Your task to perform on an android device: turn pop-ups off in chrome Image 0: 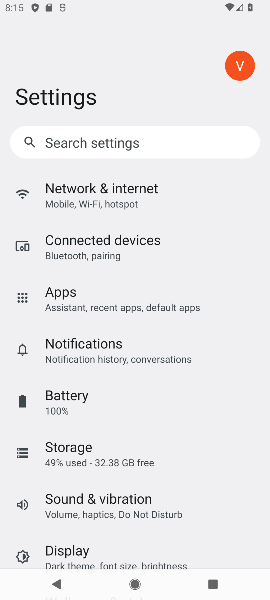
Step 0: drag from (166, 468) to (136, 194)
Your task to perform on an android device: turn pop-ups off in chrome Image 1: 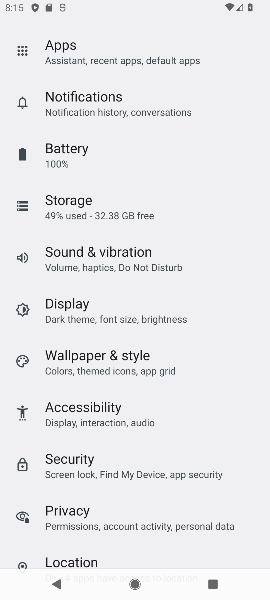
Step 1: press home button
Your task to perform on an android device: turn pop-ups off in chrome Image 2: 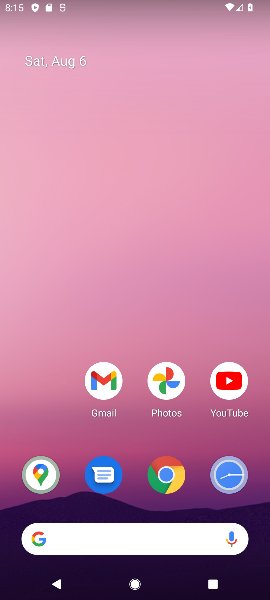
Step 2: click (164, 455)
Your task to perform on an android device: turn pop-ups off in chrome Image 3: 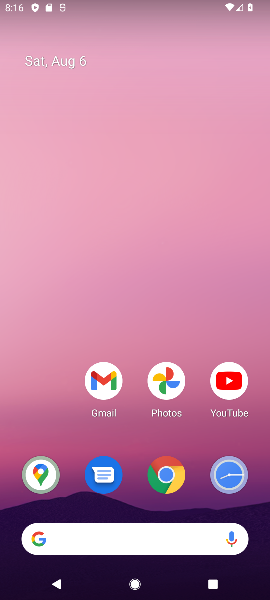
Step 3: click (167, 452)
Your task to perform on an android device: turn pop-ups off in chrome Image 4: 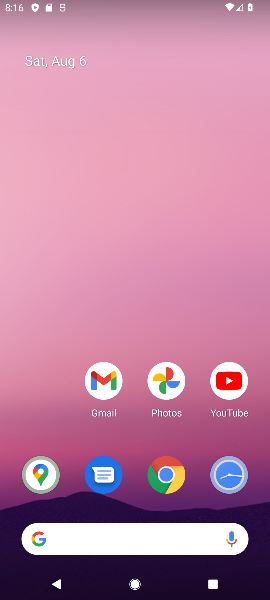
Step 4: click (172, 479)
Your task to perform on an android device: turn pop-ups off in chrome Image 5: 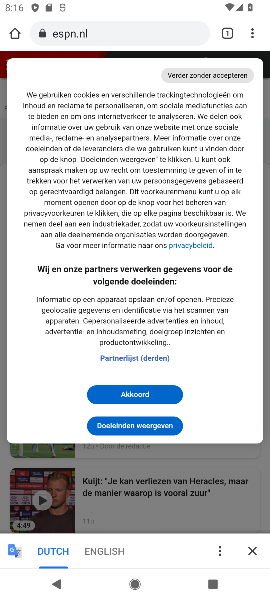
Step 5: click (244, 42)
Your task to perform on an android device: turn pop-ups off in chrome Image 6: 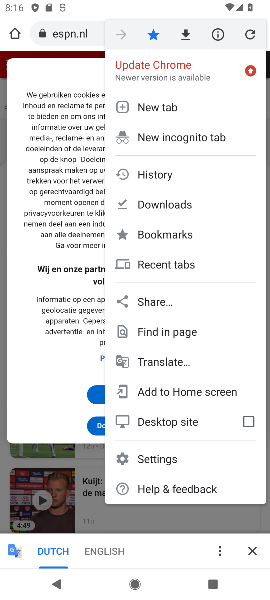
Step 6: click (174, 452)
Your task to perform on an android device: turn pop-ups off in chrome Image 7: 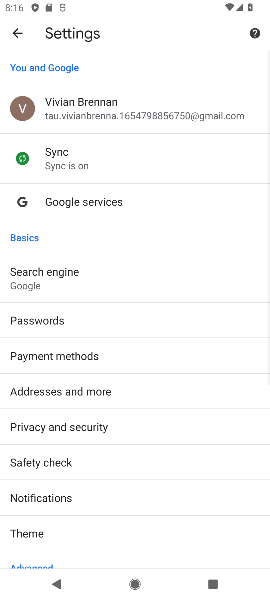
Step 7: drag from (104, 434) to (106, 271)
Your task to perform on an android device: turn pop-ups off in chrome Image 8: 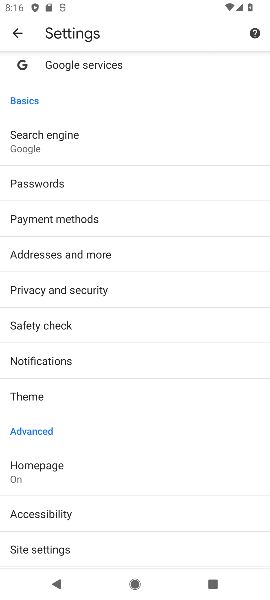
Step 8: drag from (109, 454) to (112, 297)
Your task to perform on an android device: turn pop-ups off in chrome Image 9: 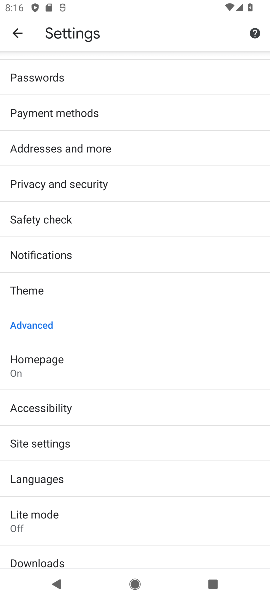
Step 9: click (71, 438)
Your task to perform on an android device: turn pop-ups off in chrome Image 10: 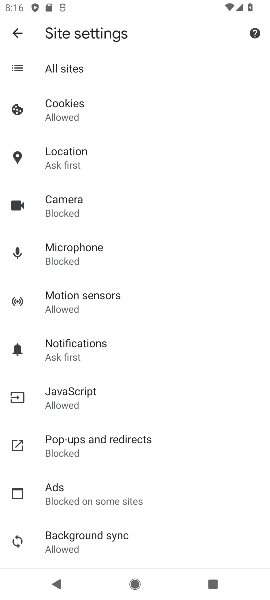
Step 10: click (98, 450)
Your task to perform on an android device: turn pop-ups off in chrome Image 11: 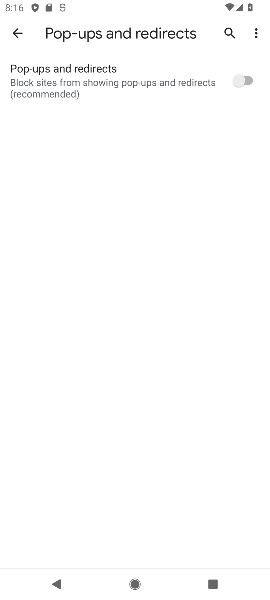
Step 11: task complete